Your task to perform on an android device: Open Google Chrome and open the bookmarks view Image 0: 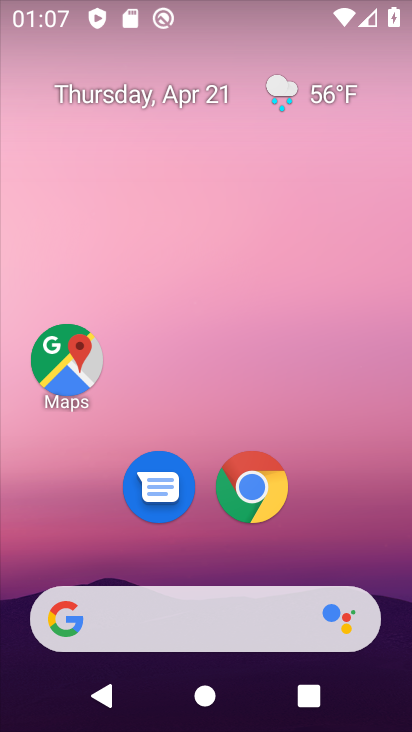
Step 0: click (236, 489)
Your task to perform on an android device: Open Google Chrome and open the bookmarks view Image 1: 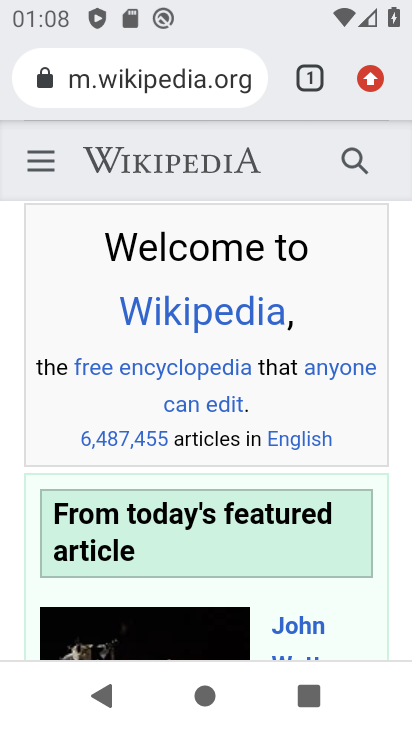
Step 1: click (358, 62)
Your task to perform on an android device: Open Google Chrome and open the bookmarks view Image 2: 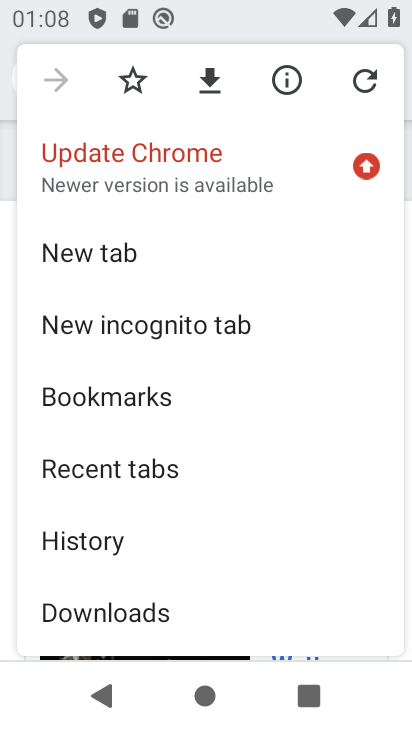
Step 2: drag from (149, 562) to (145, 410)
Your task to perform on an android device: Open Google Chrome and open the bookmarks view Image 3: 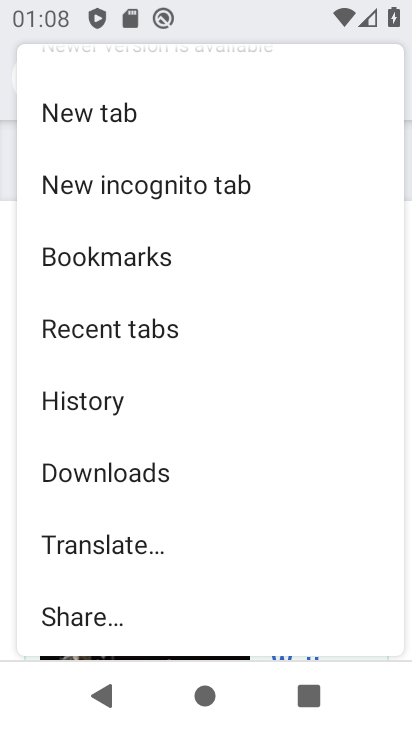
Step 3: drag from (80, 495) to (71, 462)
Your task to perform on an android device: Open Google Chrome and open the bookmarks view Image 4: 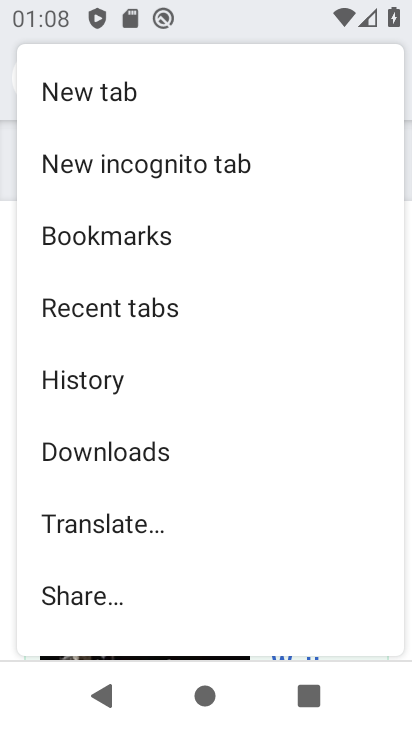
Step 4: click (100, 233)
Your task to perform on an android device: Open Google Chrome and open the bookmarks view Image 5: 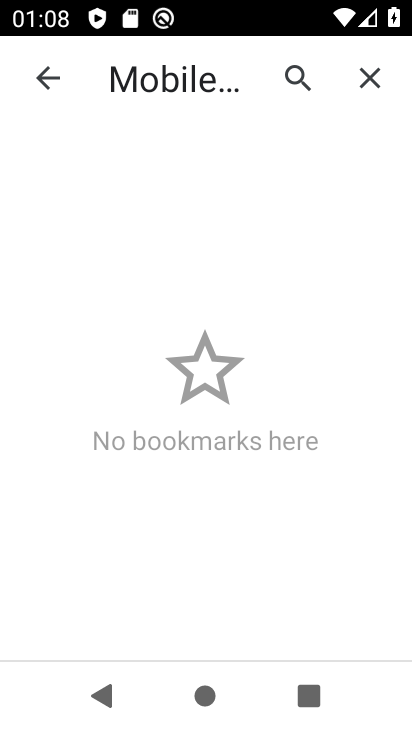
Step 5: task complete